Your task to perform on an android device: What's the weather? Image 0: 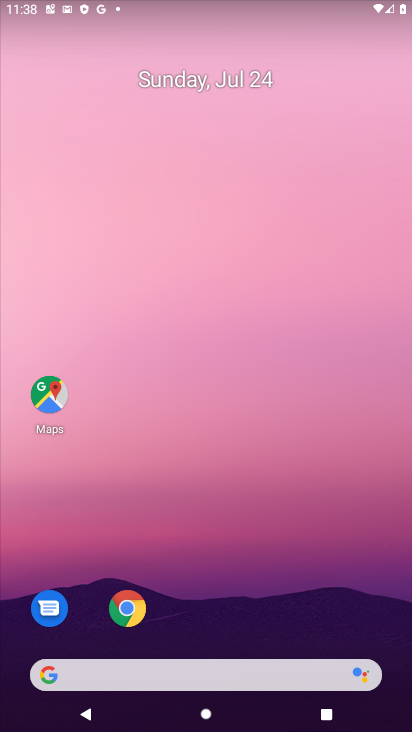
Step 0: drag from (173, 267) to (387, 379)
Your task to perform on an android device: What's the weather? Image 1: 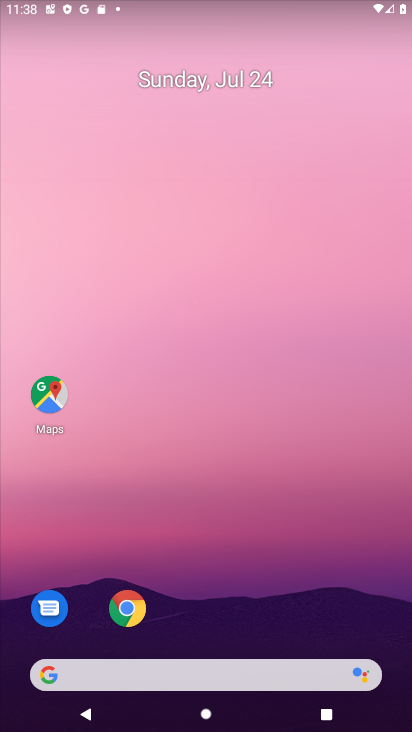
Step 1: drag from (290, 552) to (247, 3)
Your task to perform on an android device: What's the weather? Image 2: 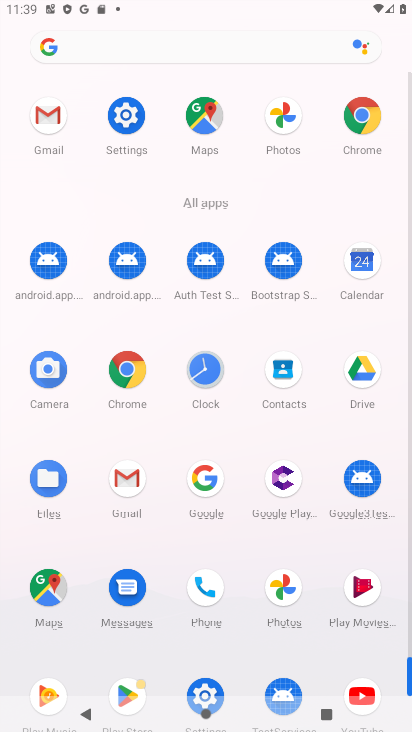
Step 2: click (200, 494)
Your task to perform on an android device: What's the weather? Image 3: 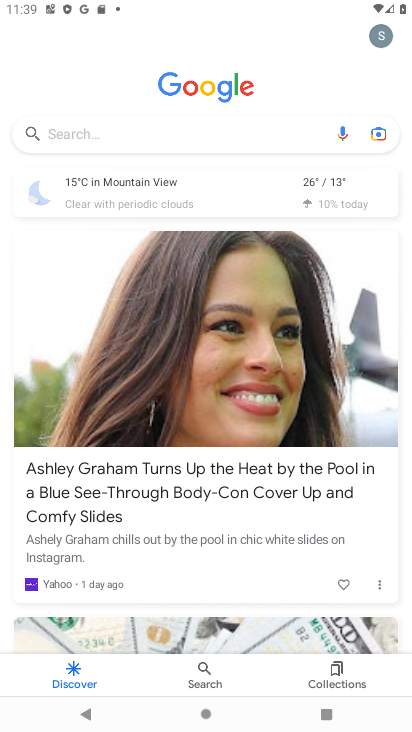
Step 3: click (151, 212)
Your task to perform on an android device: What's the weather? Image 4: 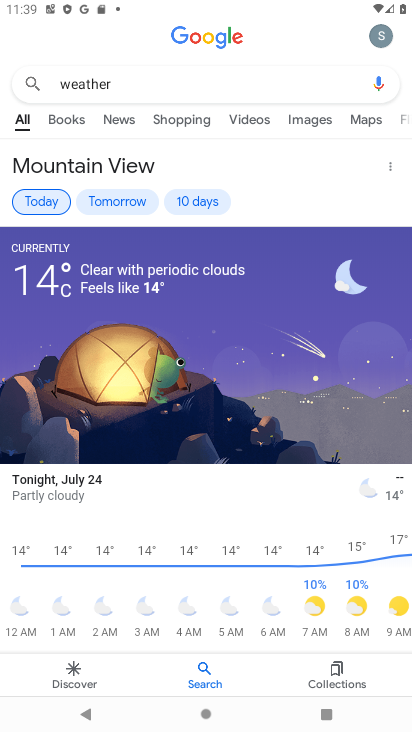
Step 4: task complete